Your task to perform on an android device: turn on notifications settings in the gmail app Image 0: 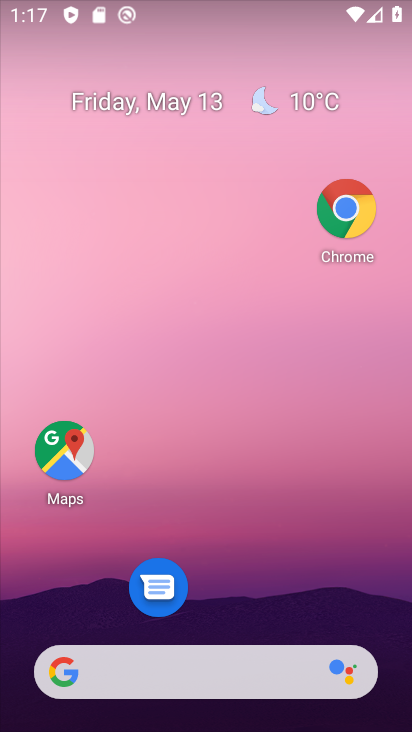
Step 0: drag from (240, 583) to (338, 67)
Your task to perform on an android device: turn on notifications settings in the gmail app Image 1: 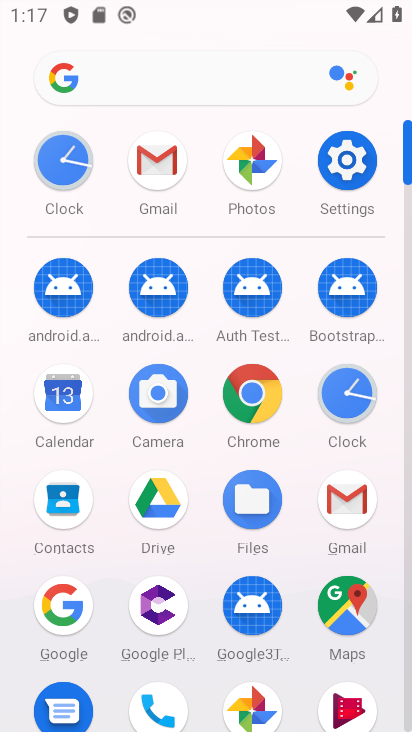
Step 1: click (163, 162)
Your task to perform on an android device: turn on notifications settings in the gmail app Image 2: 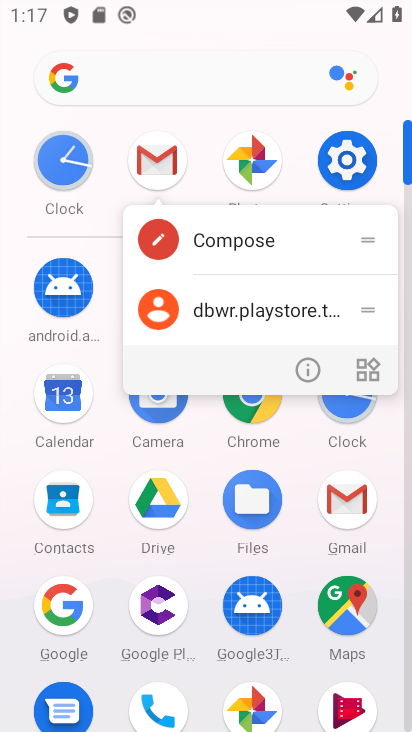
Step 2: click (310, 370)
Your task to perform on an android device: turn on notifications settings in the gmail app Image 3: 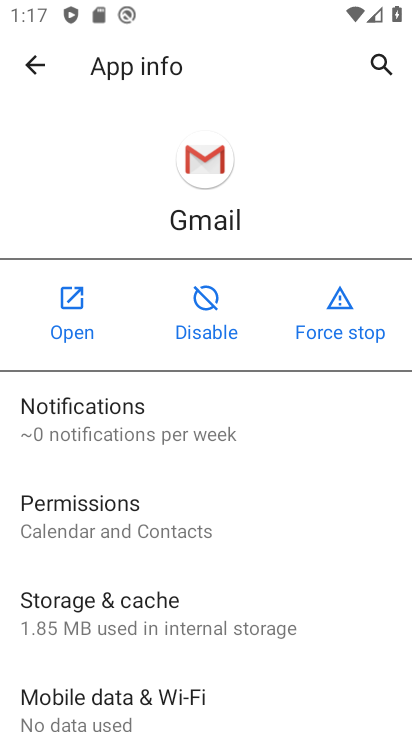
Step 3: click (150, 412)
Your task to perform on an android device: turn on notifications settings in the gmail app Image 4: 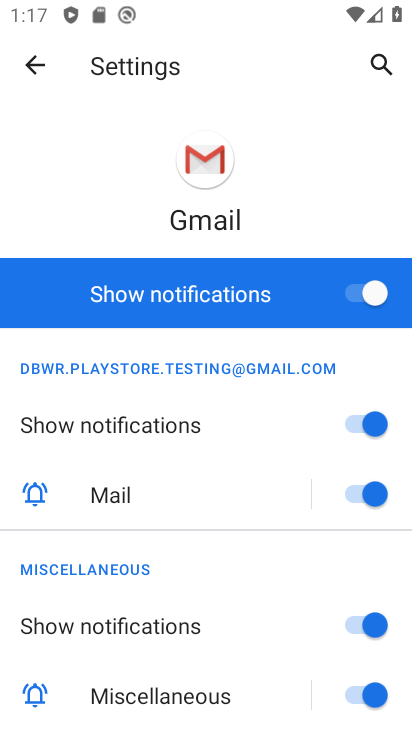
Step 4: task complete